Your task to perform on an android device: Go to privacy settings Image 0: 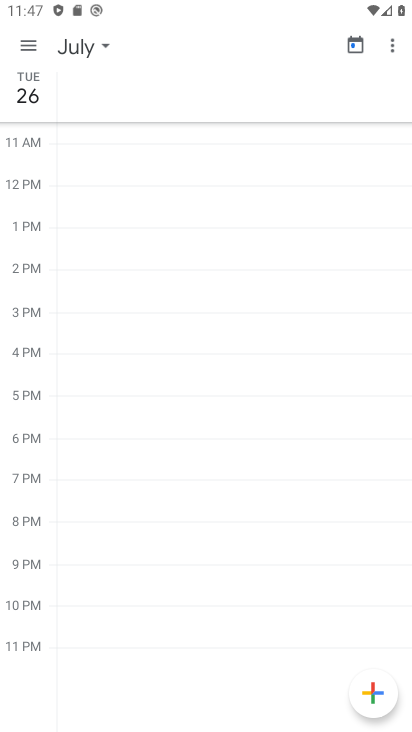
Step 0: press home button
Your task to perform on an android device: Go to privacy settings Image 1: 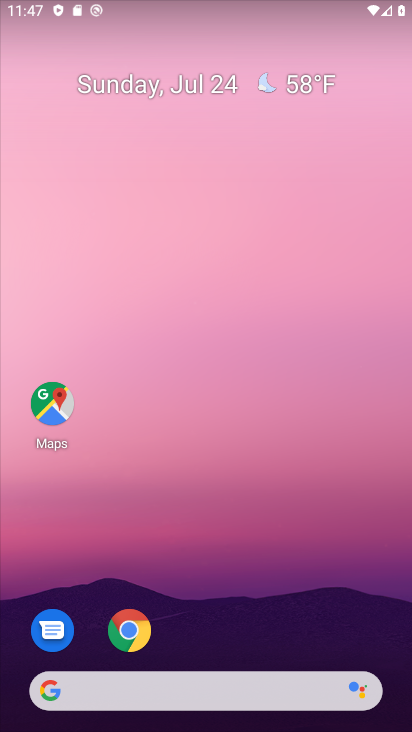
Step 1: drag from (230, 643) to (241, 107)
Your task to perform on an android device: Go to privacy settings Image 2: 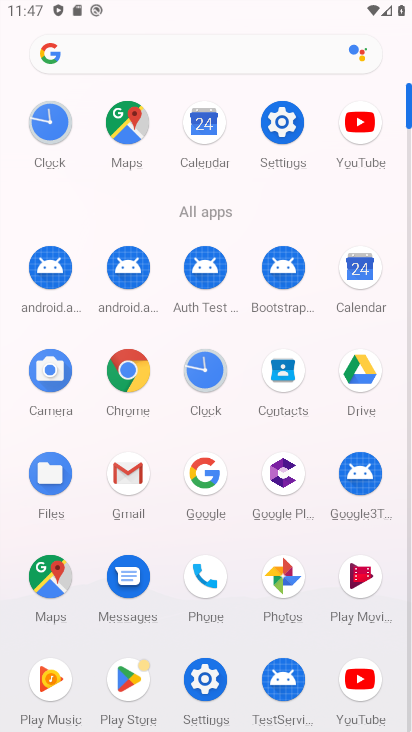
Step 2: click (280, 123)
Your task to perform on an android device: Go to privacy settings Image 3: 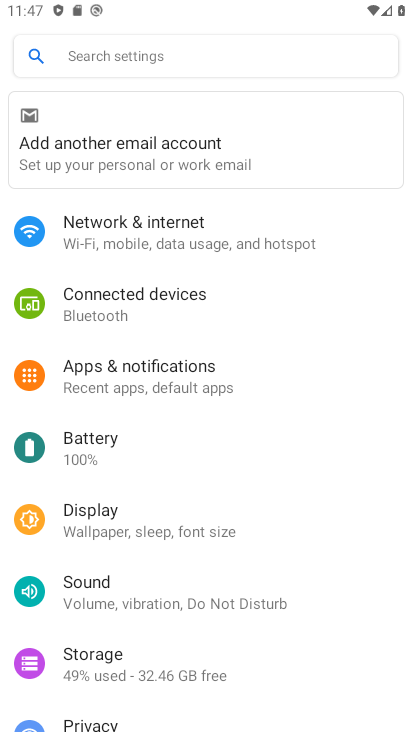
Step 3: drag from (198, 712) to (167, 168)
Your task to perform on an android device: Go to privacy settings Image 4: 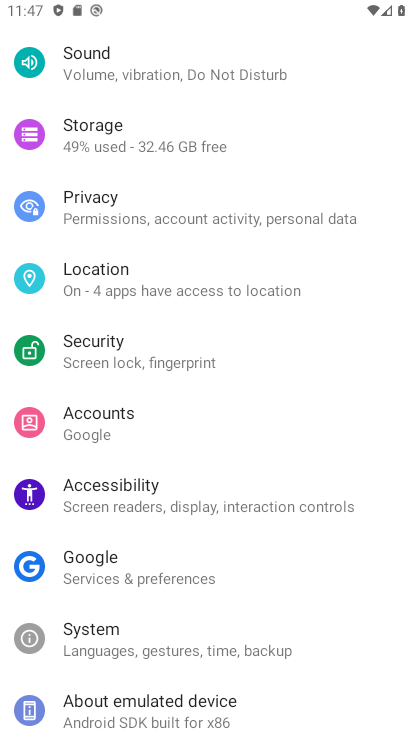
Step 4: click (133, 224)
Your task to perform on an android device: Go to privacy settings Image 5: 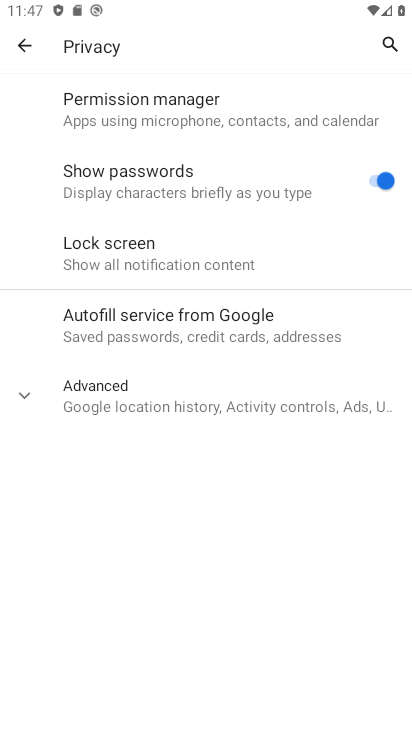
Step 5: task complete